Your task to perform on an android device: Open location settings Image 0: 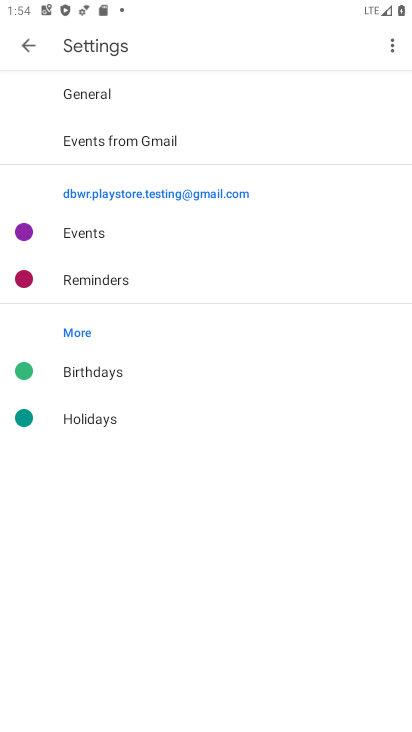
Step 0: press home button
Your task to perform on an android device: Open location settings Image 1: 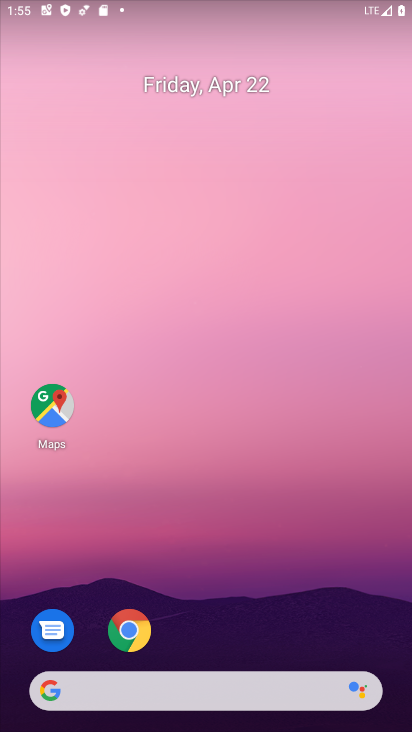
Step 1: drag from (346, 536) to (323, 107)
Your task to perform on an android device: Open location settings Image 2: 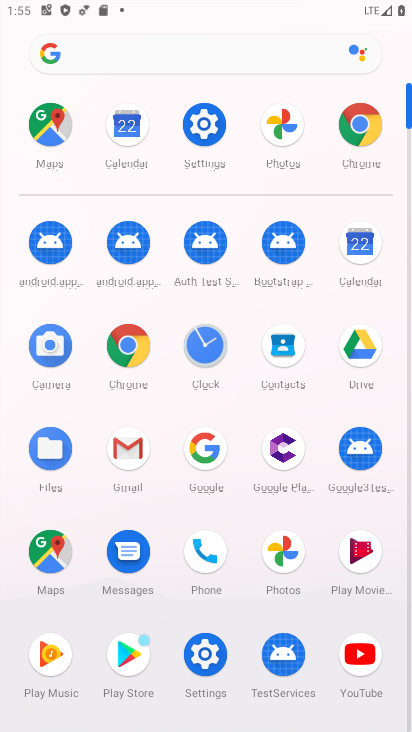
Step 2: click (194, 662)
Your task to perform on an android device: Open location settings Image 3: 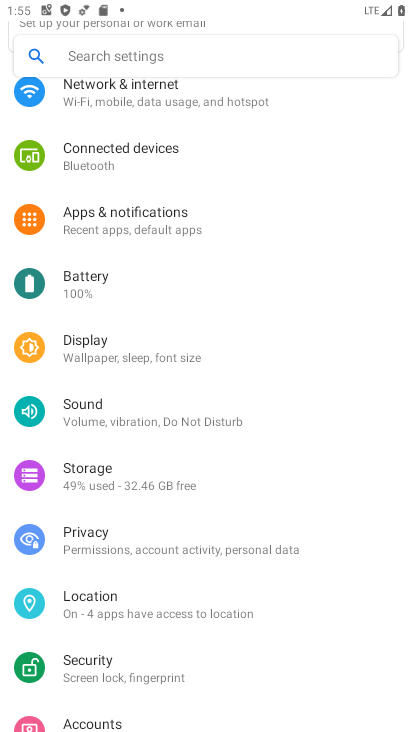
Step 3: click (111, 603)
Your task to perform on an android device: Open location settings Image 4: 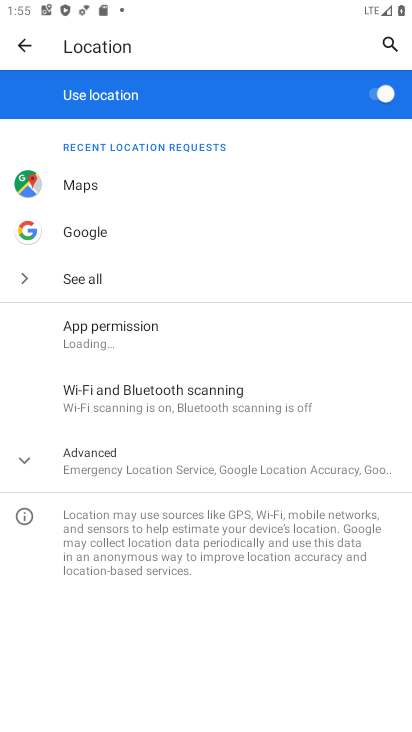
Step 4: click (195, 463)
Your task to perform on an android device: Open location settings Image 5: 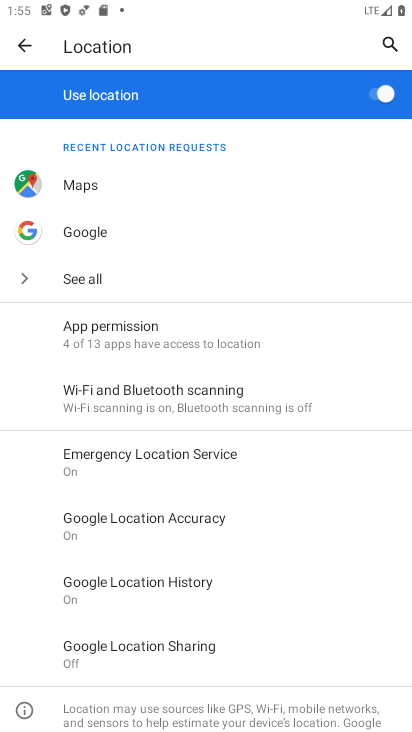
Step 5: task complete